Your task to perform on an android device: What's the weather going to be this weekend? Image 0: 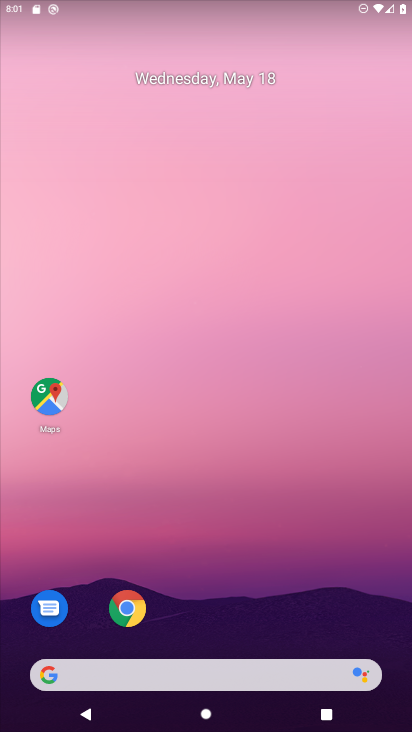
Step 0: drag from (229, 602) to (188, 46)
Your task to perform on an android device: What's the weather going to be this weekend? Image 1: 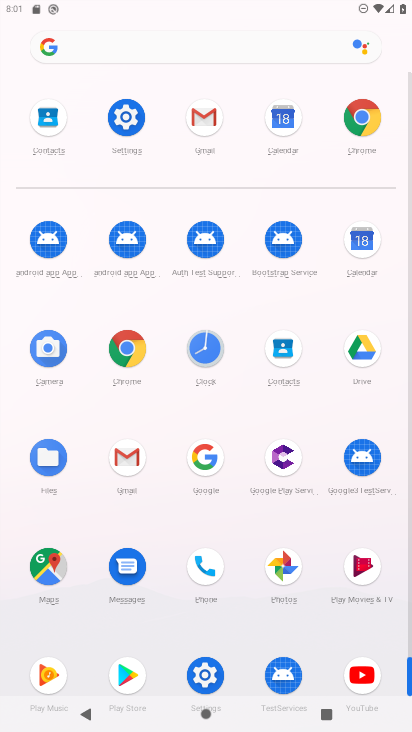
Step 1: click (291, 124)
Your task to perform on an android device: What's the weather going to be this weekend? Image 2: 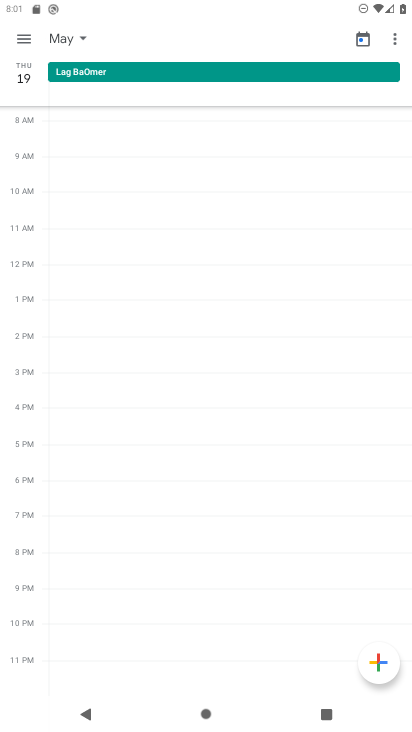
Step 2: click (22, 38)
Your task to perform on an android device: What's the weather going to be this weekend? Image 3: 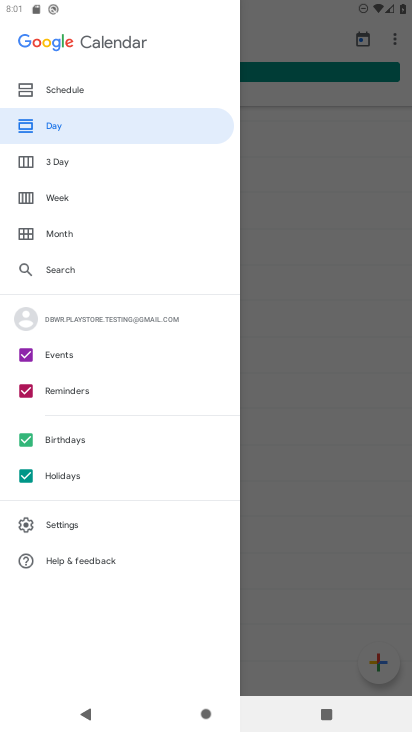
Step 3: click (64, 167)
Your task to perform on an android device: What's the weather going to be this weekend? Image 4: 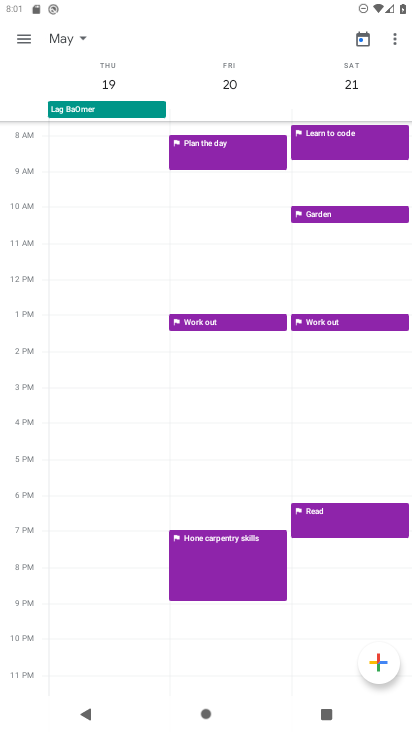
Step 4: click (74, 36)
Your task to perform on an android device: What's the weather going to be this weekend? Image 5: 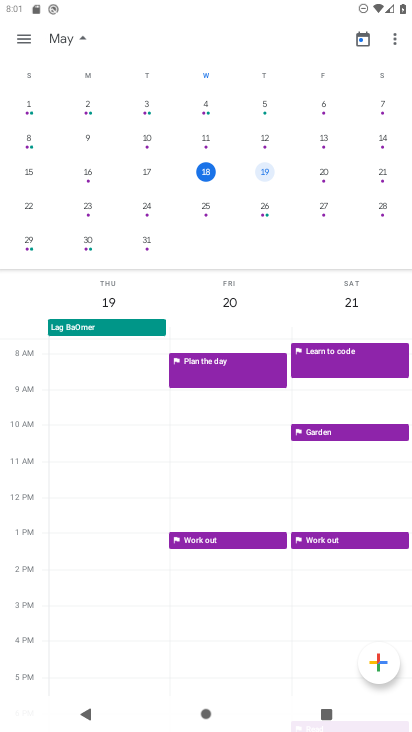
Step 5: click (321, 170)
Your task to perform on an android device: What's the weather going to be this weekend? Image 6: 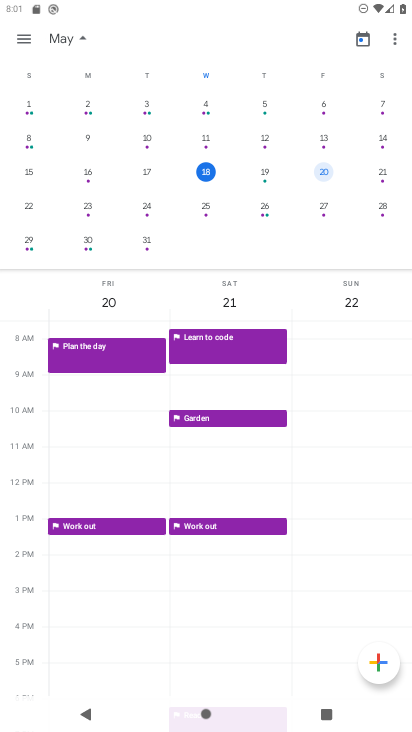
Step 6: task complete